Your task to perform on an android device: add a contact in the contacts app Image 0: 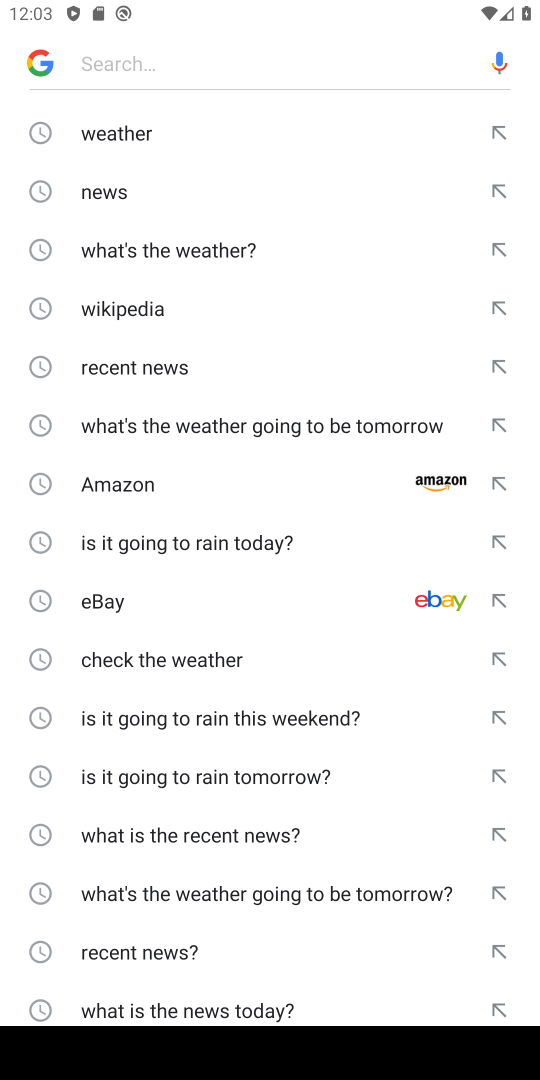
Step 0: press home button
Your task to perform on an android device: add a contact in the contacts app Image 1: 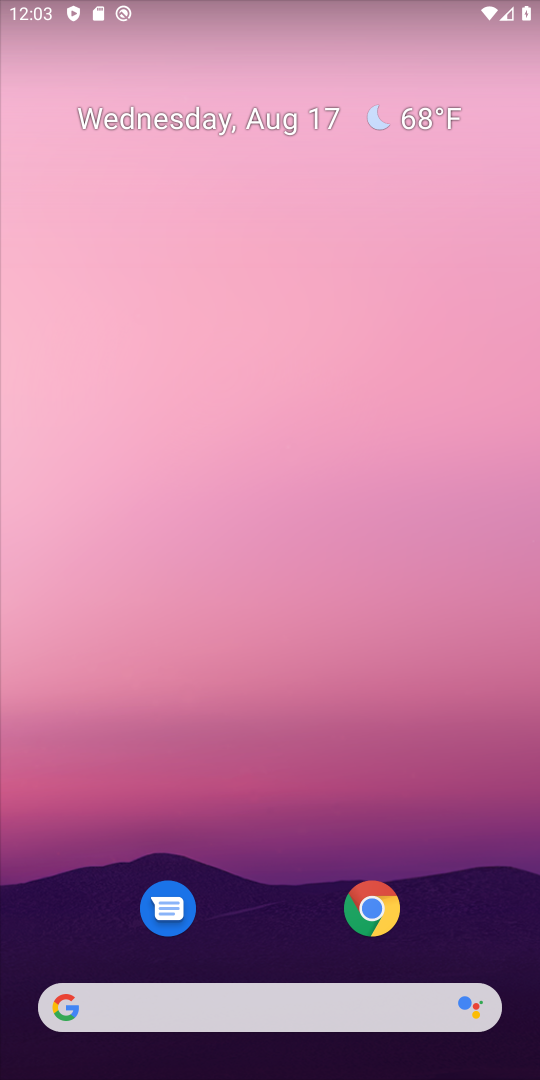
Step 1: drag from (265, 216) to (265, 111)
Your task to perform on an android device: add a contact in the contacts app Image 2: 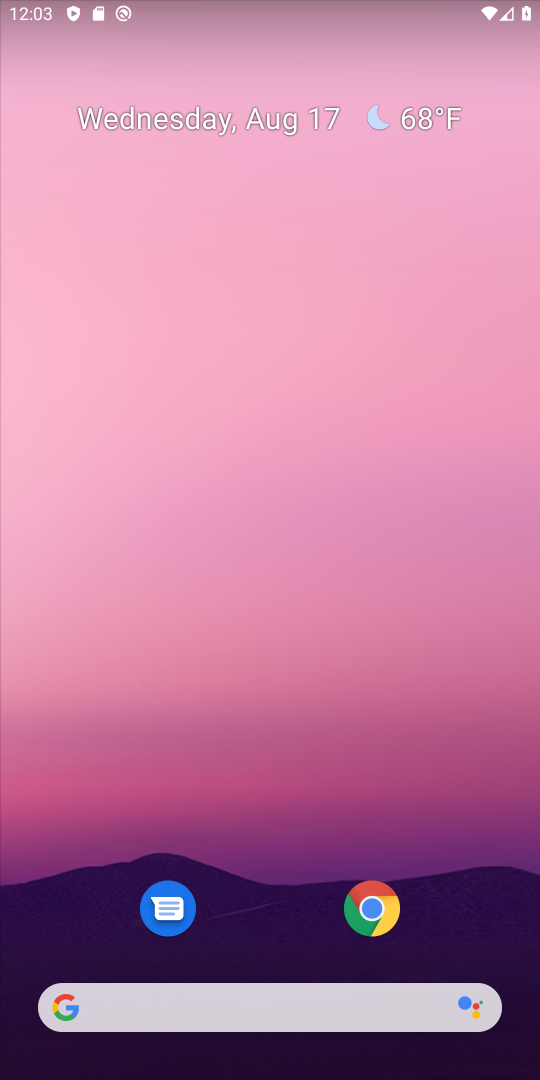
Step 2: drag from (282, 892) to (286, 269)
Your task to perform on an android device: add a contact in the contacts app Image 3: 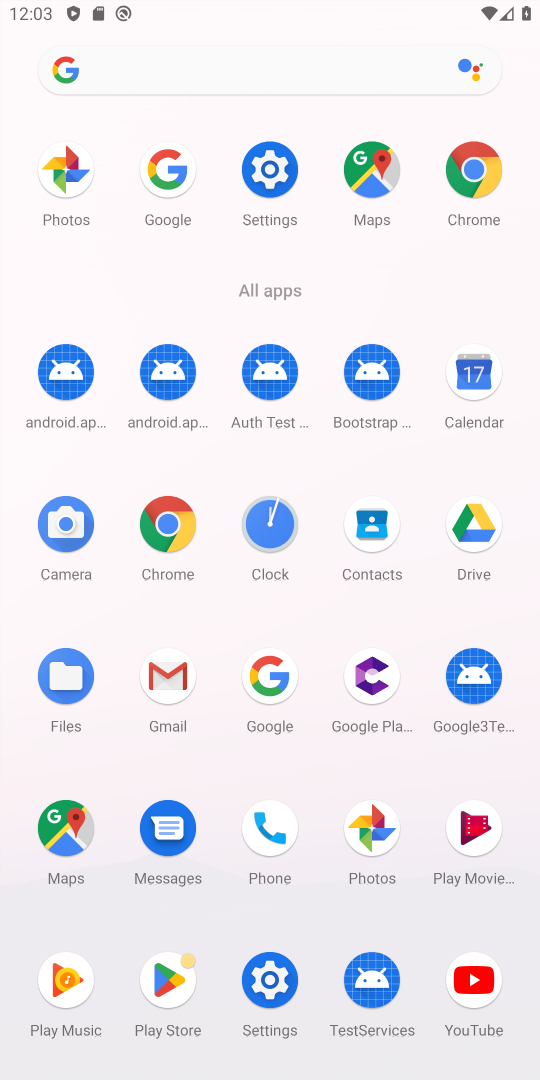
Step 3: click (361, 537)
Your task to perform on an android device: add a contact in the contacts app Image 4: 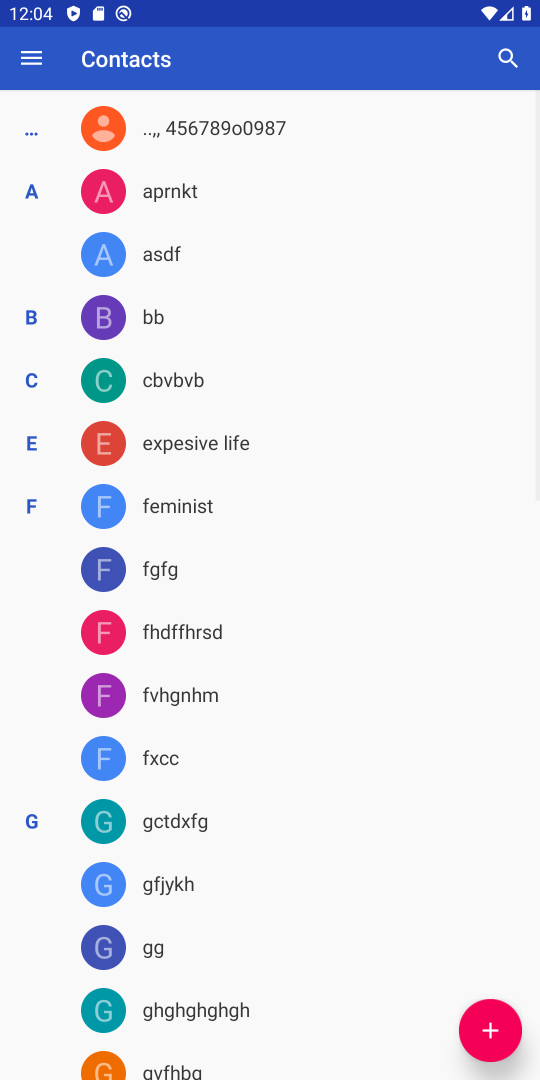
Step 4: click (474, 1028)
Your task to perform on an android device: add a contact in the contacts app Image 5: 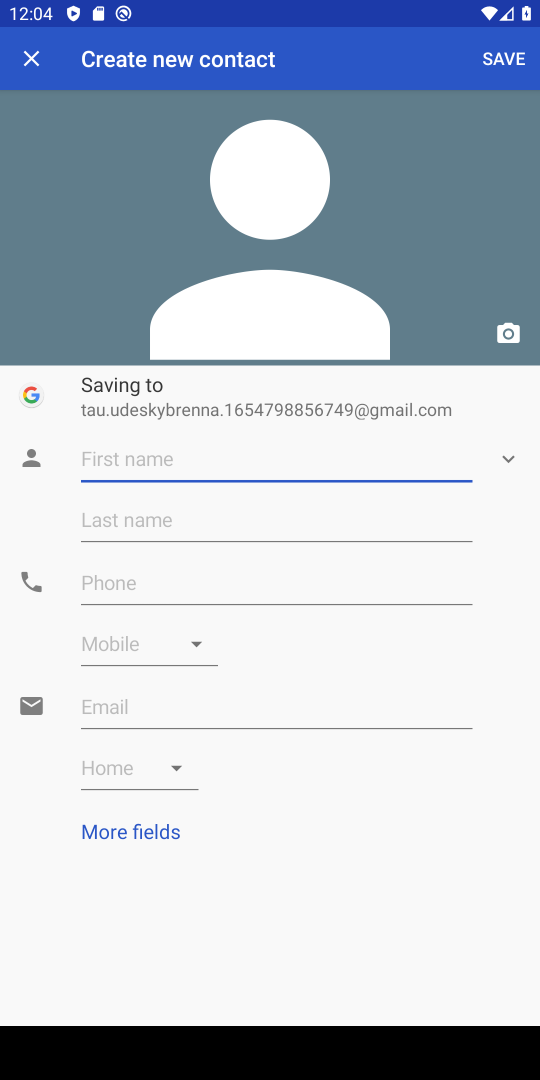
Step 5: type "dsfgfdsg"
Your task to perform on an android device: add a contact in the contacts app Image 6: 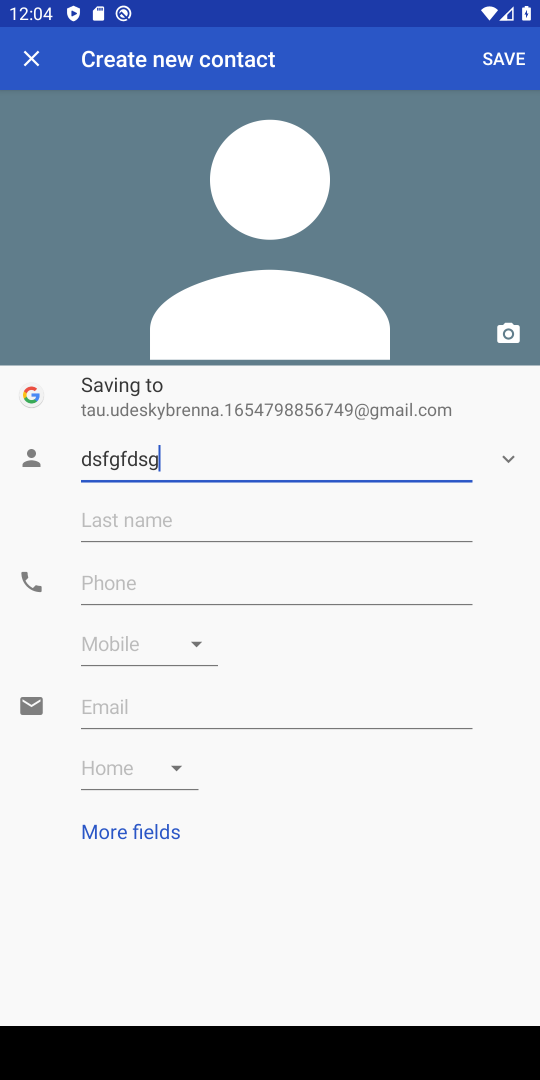
Step 6: click (163, 590)
Your task to perform on an android device: add a contact in the contacts app Image 7: 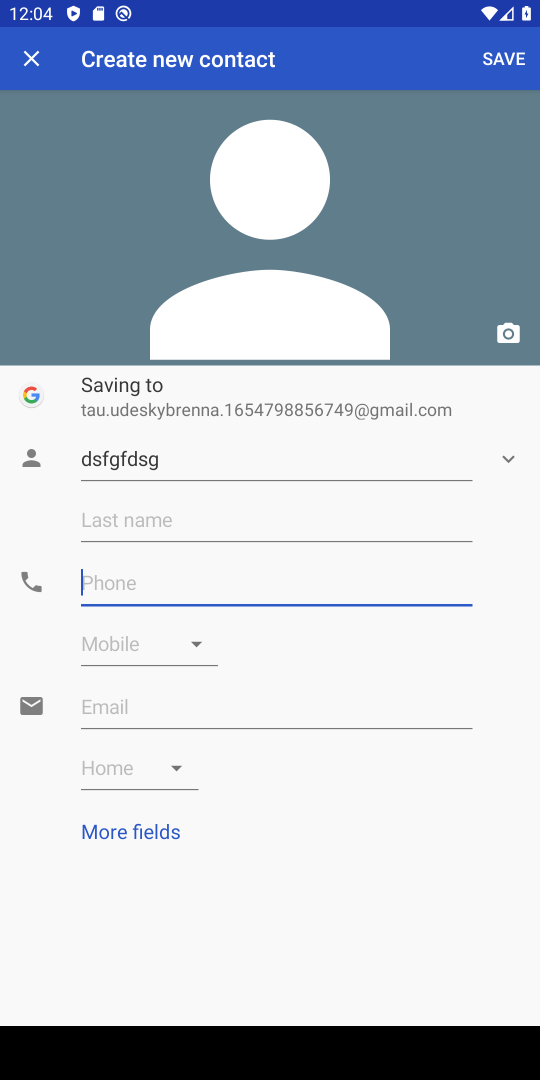
Step 7: type "6856476464"
Your task to perform on an android device: add a contact in the contacts app Image 8: 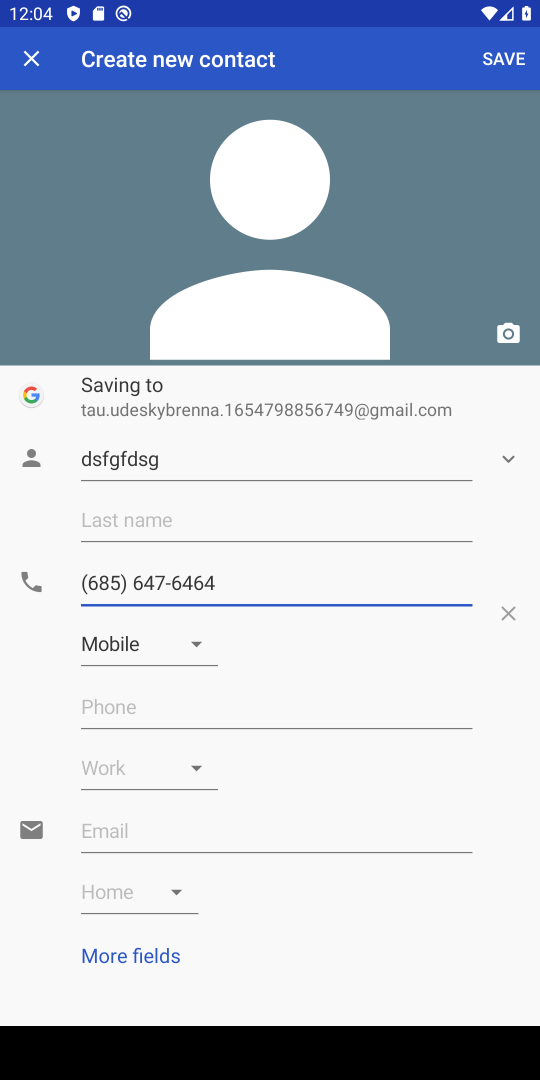
Step 8: click (500, 70)
Your task to perform on an android device: add a contact in the contacts app Image 9: 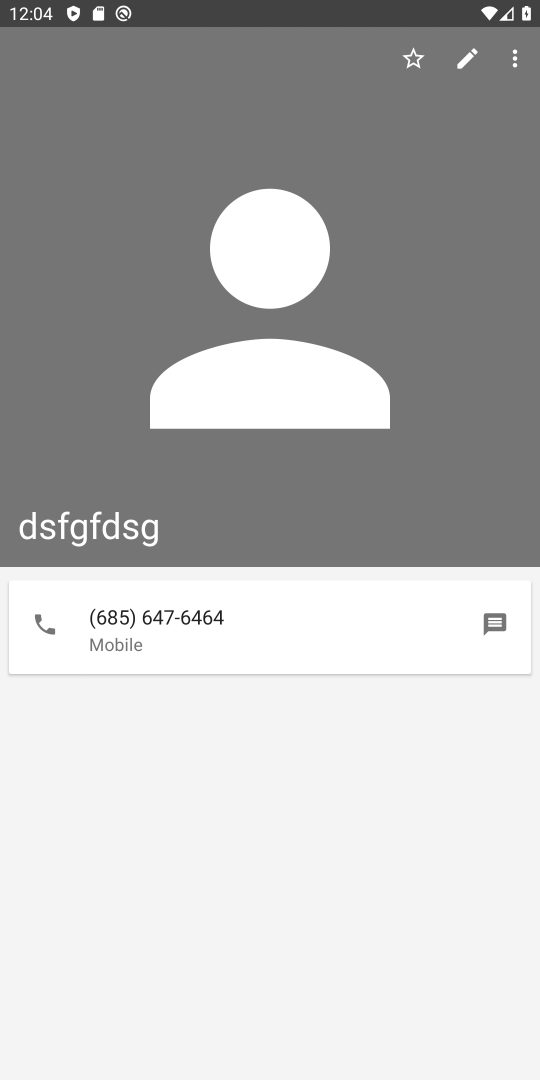
Step 9: task complete